Your task to perform on an android device: choose inbox layout in the gmail app Image 0: 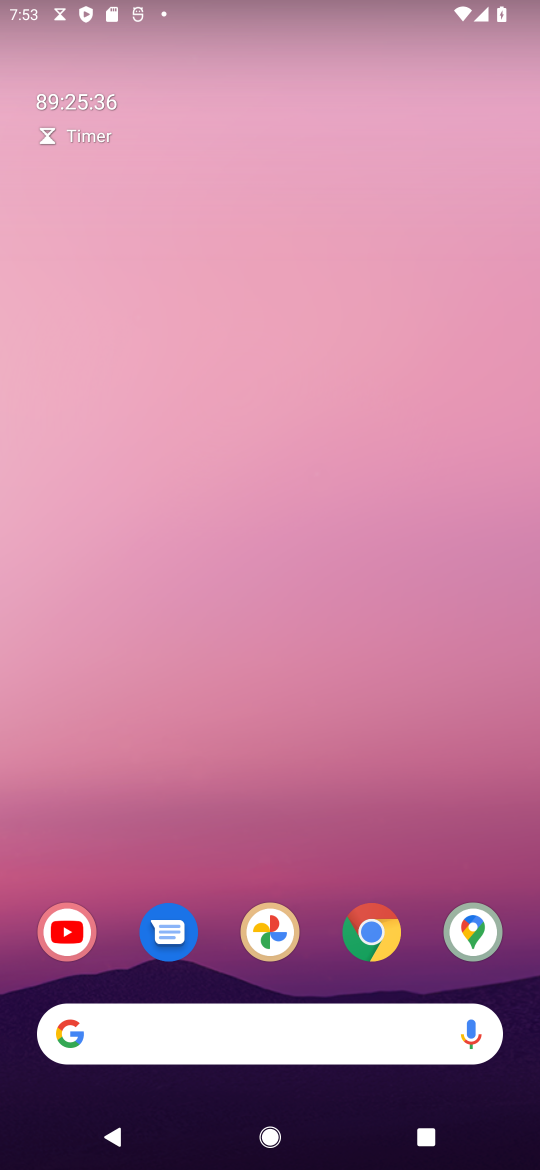
Step 0: drag from (299, 855) to (208, 338)
Your task to perform on an android device: choose inbox layout in the gmail app Image 1: 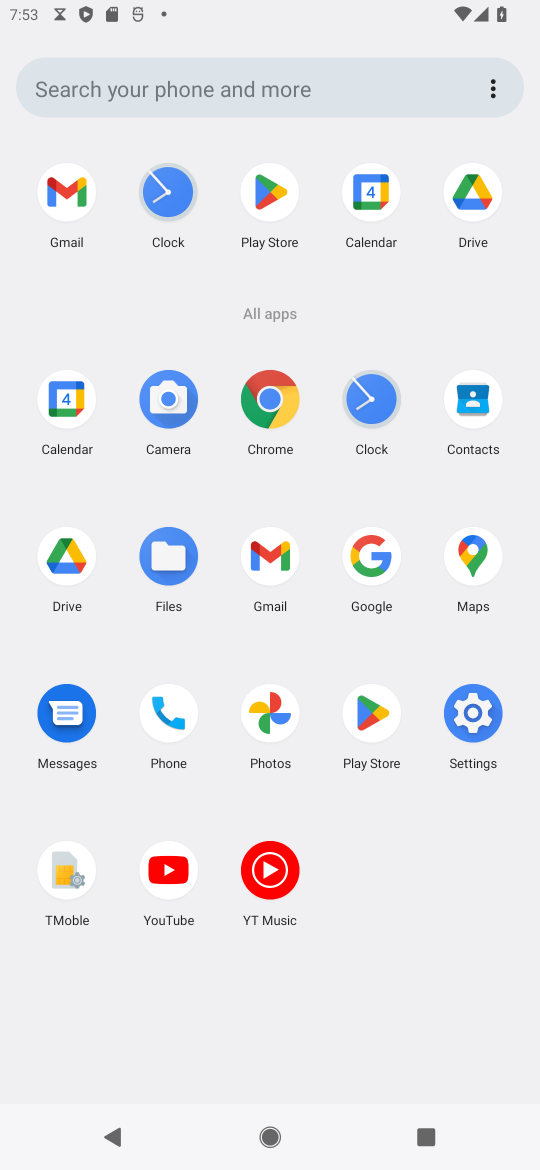
Step 1: click (265, 553)
Your task to perform on an android device: choose inbox layout in the gmail app Image 2: 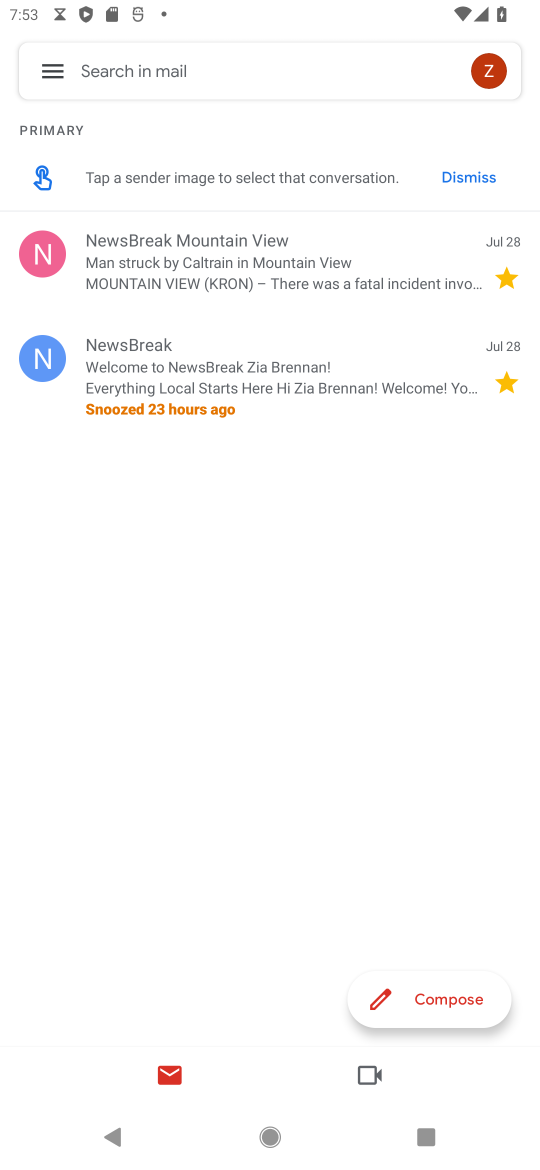
Step 2: click (37, 81)
Your task to perform on an android device: choose inbox layout in the gmail app Image 3: 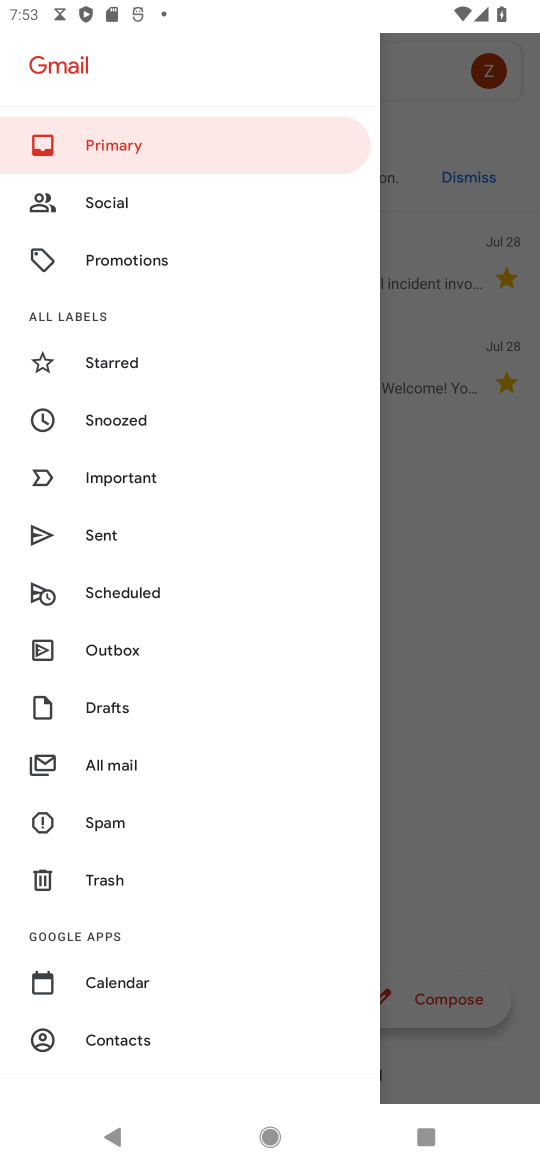
Step 3: drag from (188, 1007) to (116, 238)
Your task to perform on an android device: choose inbox layout in the gmail app Image 4: 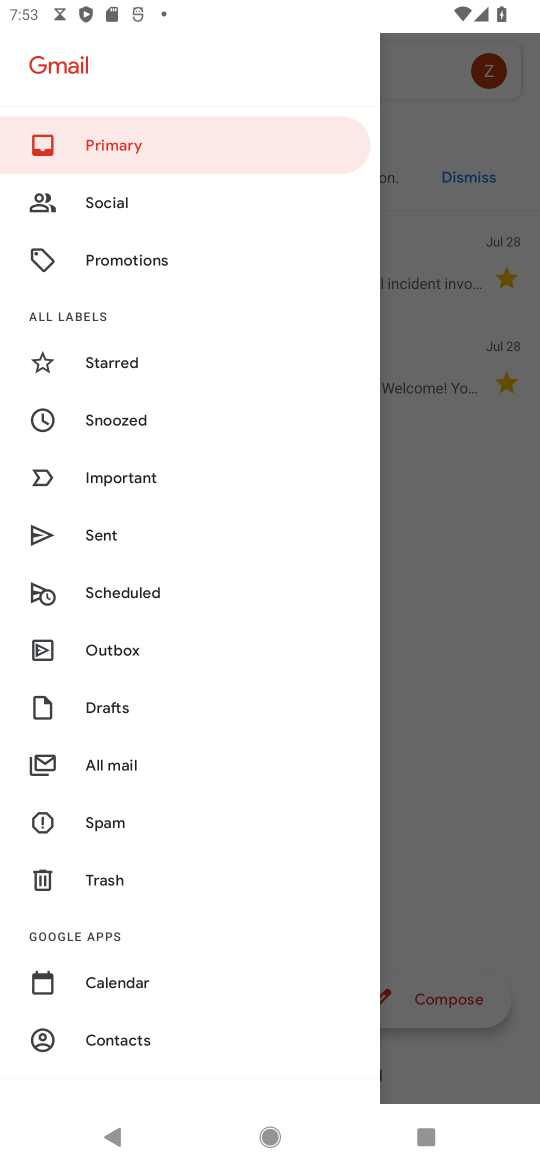
Step 4: drag from (191, 845) to (186, 210)
Your task to perform on an android device: choose inbox layout in the gmail app Image 5: 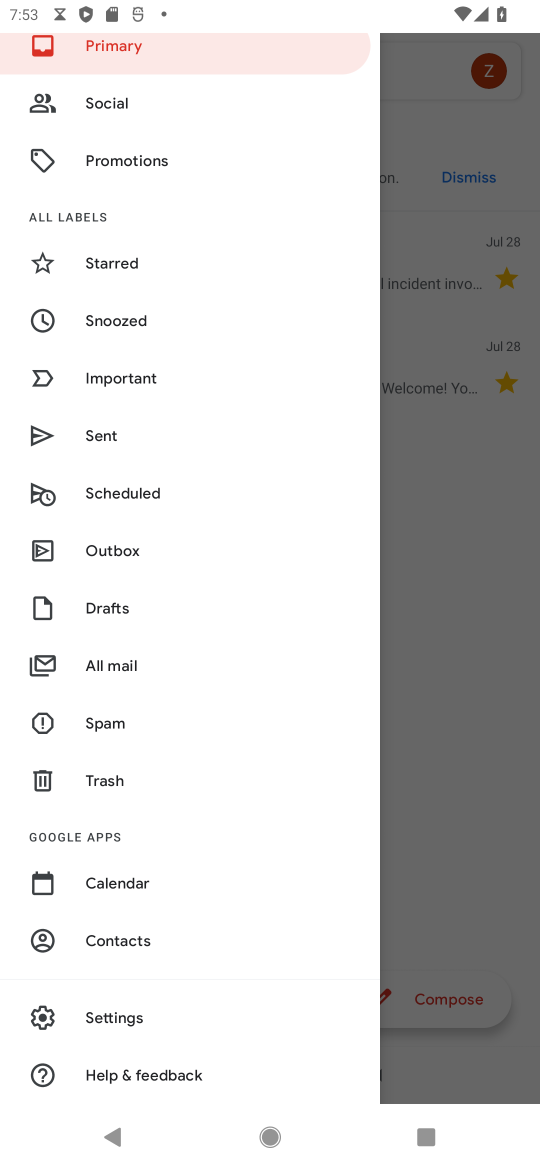
Step 5: click (152, 1002)
Your task to perform on an android device: choose inbox layout in the gmail app Image 6: 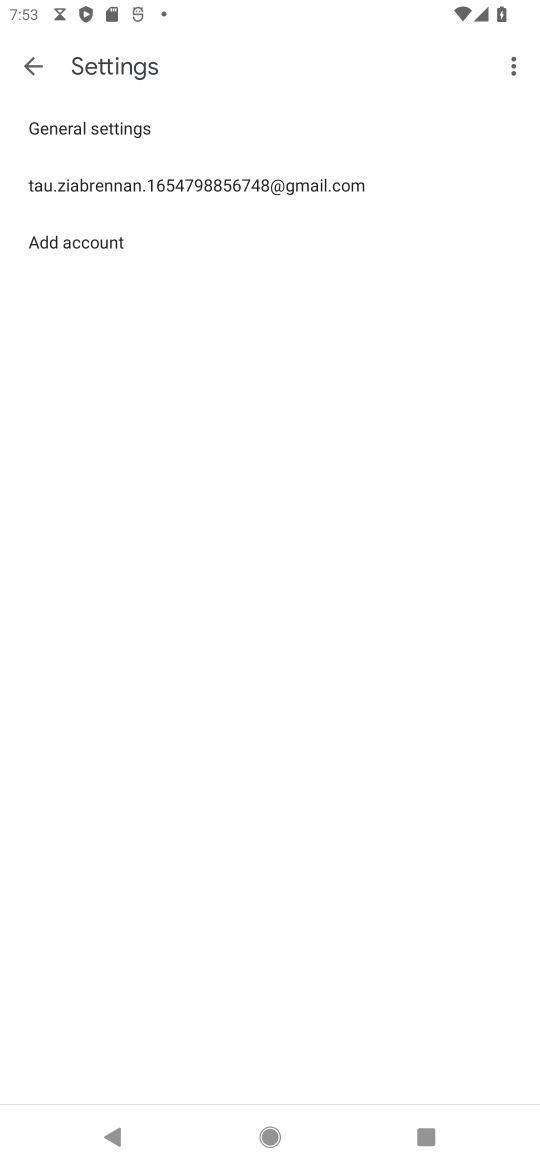
Step 6: click (291, 213)
Your task to perform on an android device: choose inbox layout in the gmail app Image 7: 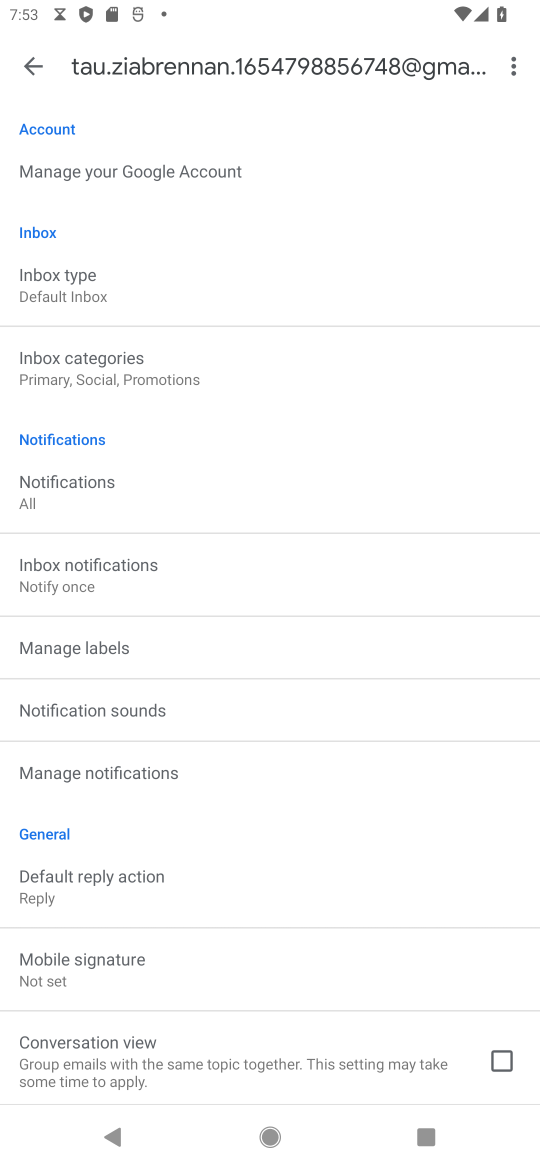
Step 7: click (84, 281)
Your task to perform on an android device: choose inbox layout in the gmail app Image 8: 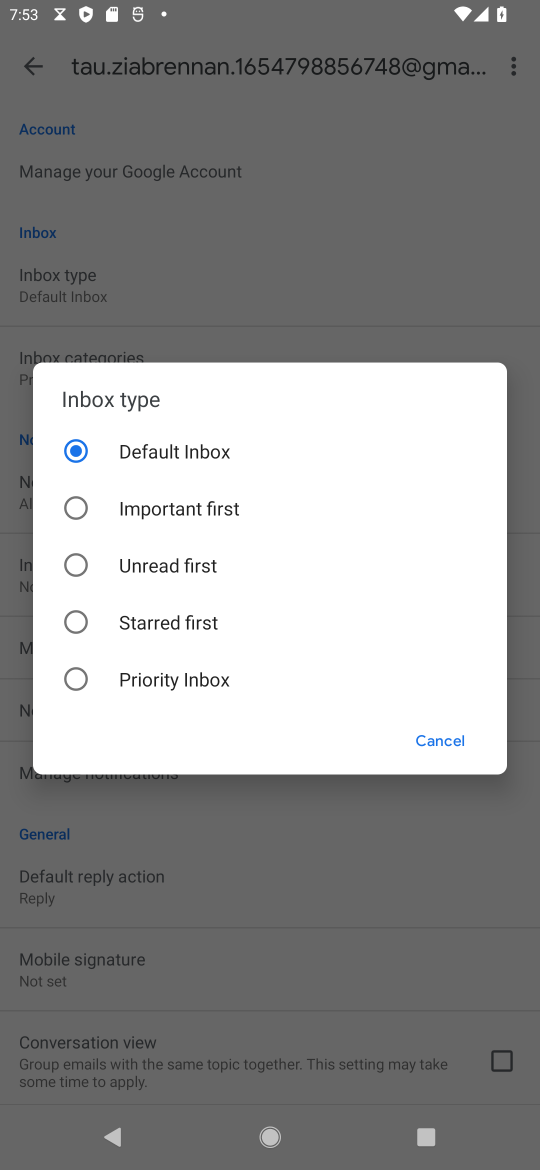
Step 8: click (133, 512)
Your task to perform on an android device: choose inbox layout in the gmail app Image 9: 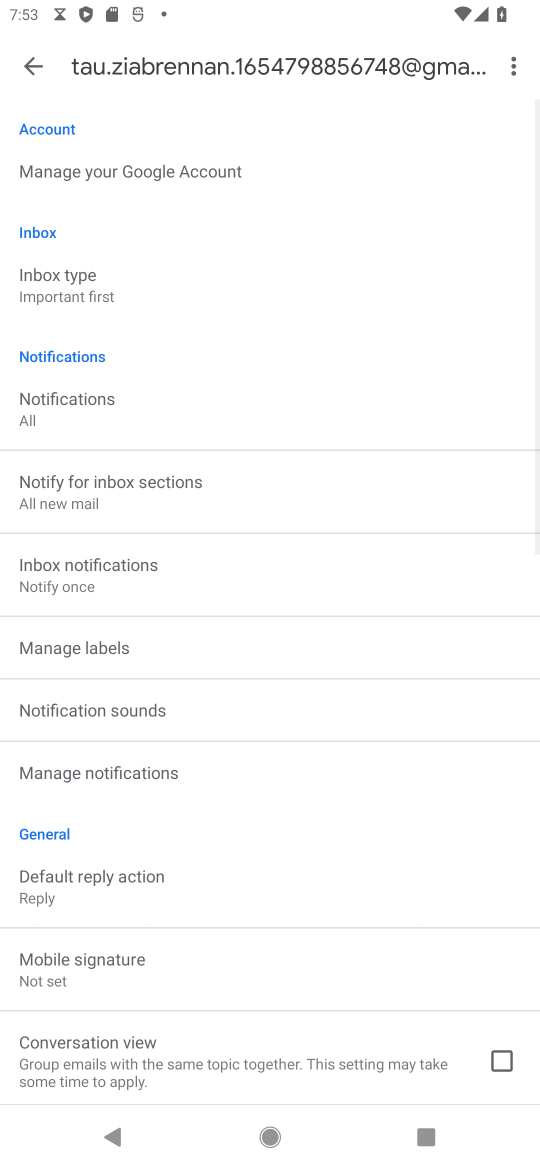
Step 9: task complete